Your task to perform on an android device: turn on notifications settings in the gmail app Image 0: 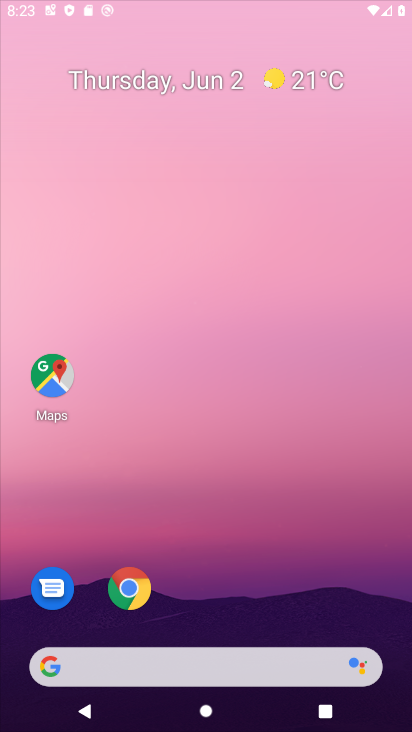
Step 0: click (190, 274)
Your task to perform on an android device: turn on notifications settings in the gmail app Image 1: 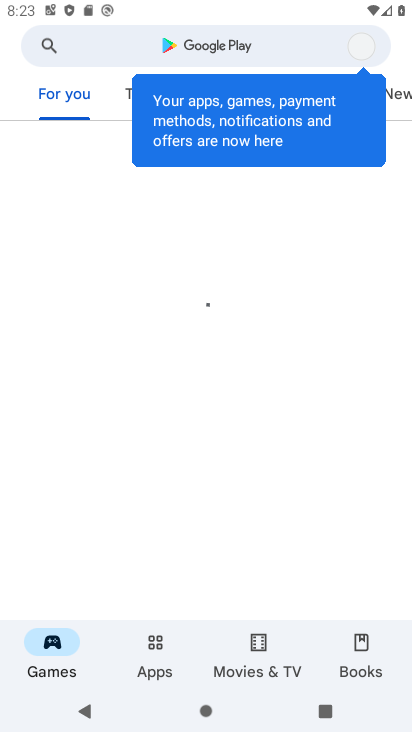
Step 1: press home button
Your task to perform on an android device: turn on notifications settings in the gmail app Image 2: 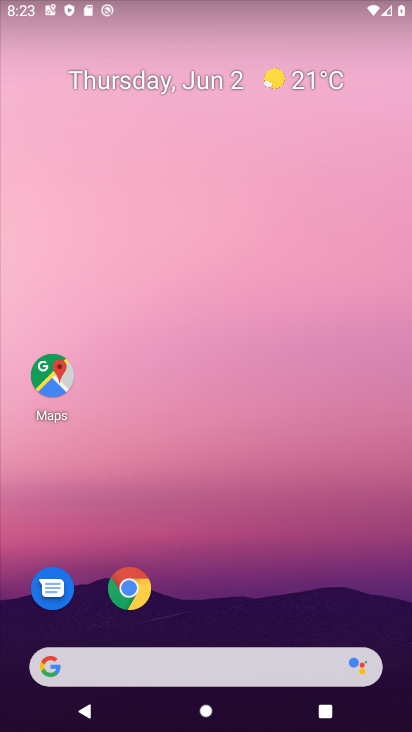
Step 2: drag from (214, 654) to (221, 209)
Your task to perform on an android device: turn on notifications settings in the gmail app Image 3: 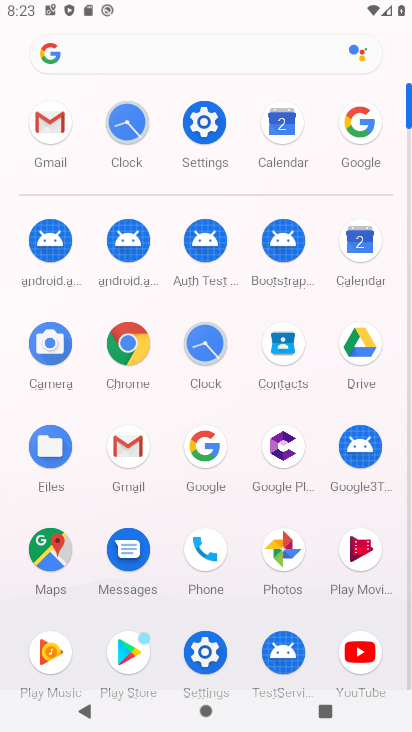
Step 3: click (138, 467)
Your task to perform on an android device: turn on notifications settings in the gmail app Image 4: 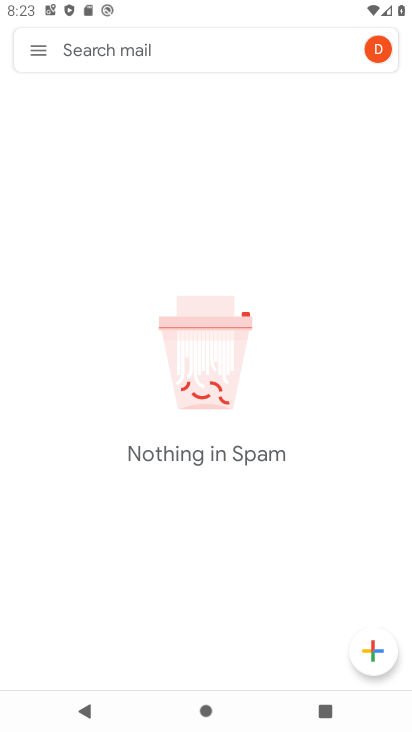
Step 4: click (41, 44)
Your task to perform on an android device: turn on notifications settings in the gmail app Image 5: 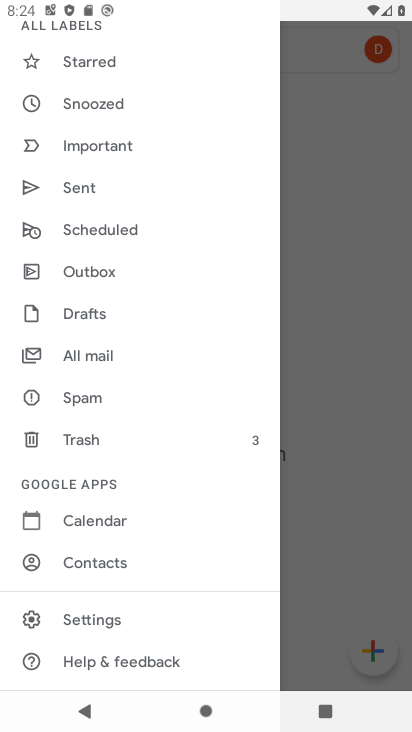
Step 5: click (112, 620)
Your task to perform on an android device: turn on notifications settings in the gmail app Image 6: 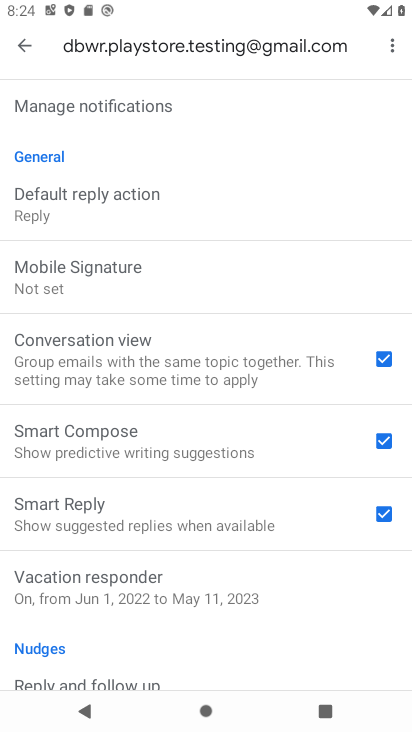
Step 6: drag from (141, 221) to (147, 406)
Your task to perform on an android device: turn on notifications settings in the gmail app Image 7: 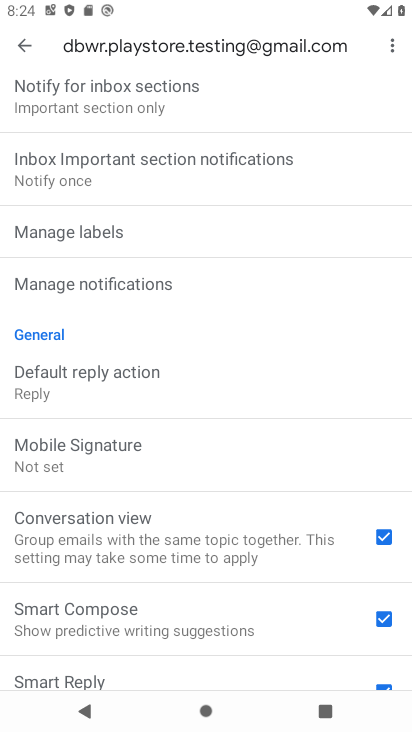
Step 7: click (145, 262)
Your task to perform on an android device: turn on notifications settings in the gmail app Image 8: 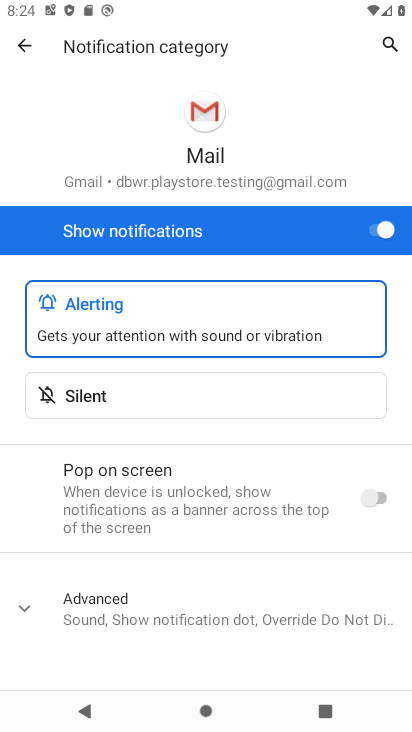
Step 8: task complete